Your task to perform on an android device: stop showing notifications on the lock screen Image 0: 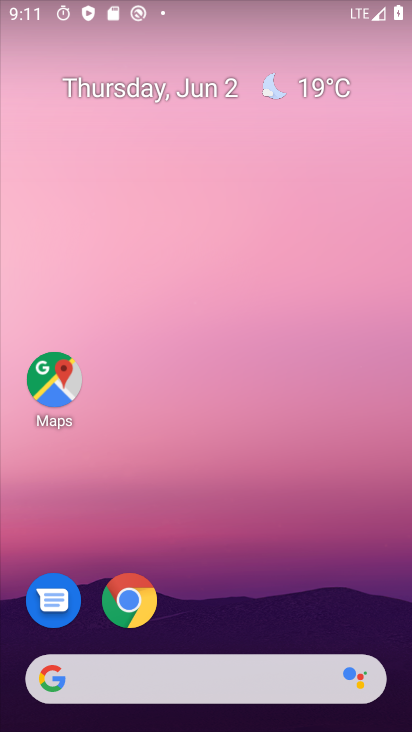
Step 0: drag from (280, 627) to (240, 326)
Your task to perform on an android device: stop showing notifications on the lock screen Image 1: 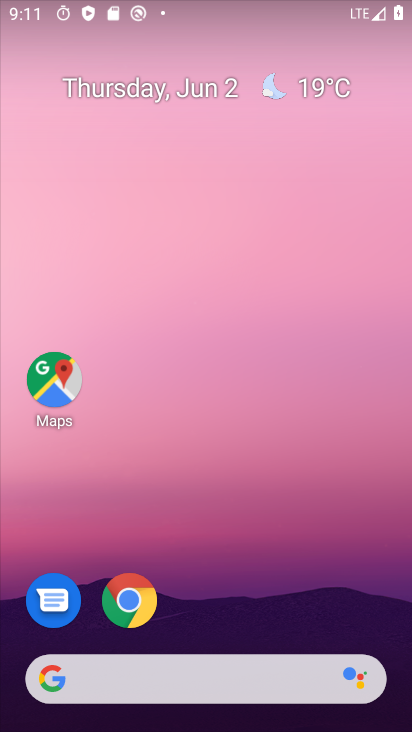
Step 1: drag from (219, 626) to (259, 138)
Your task to perform on an android device: stop showing notifications on the lock screen Image 2: 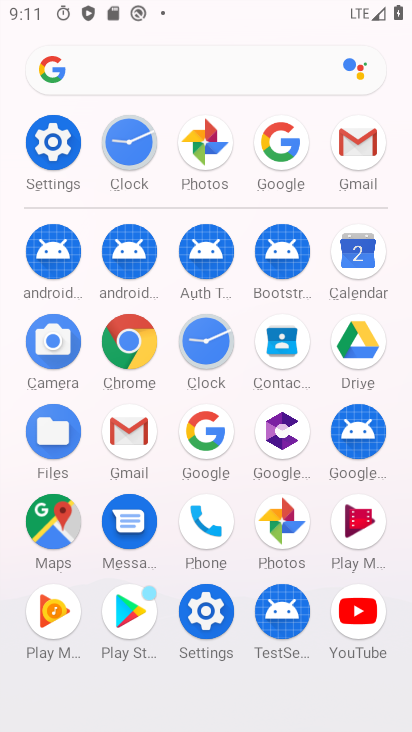
Step 2: click (59, 156)
Your task to perform on an android device: stop showing notifications on the lock screen Image 3: 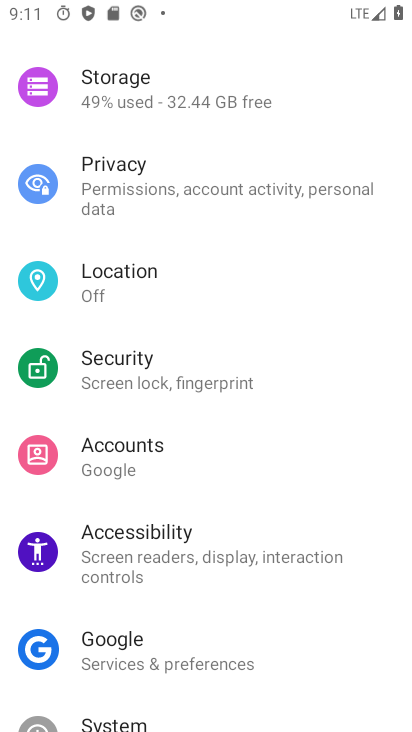
Step 3: drag from (246, 649) to (257, 430)
Your task to perform on an android device: stop showing notifications on the lock screen Image 4: 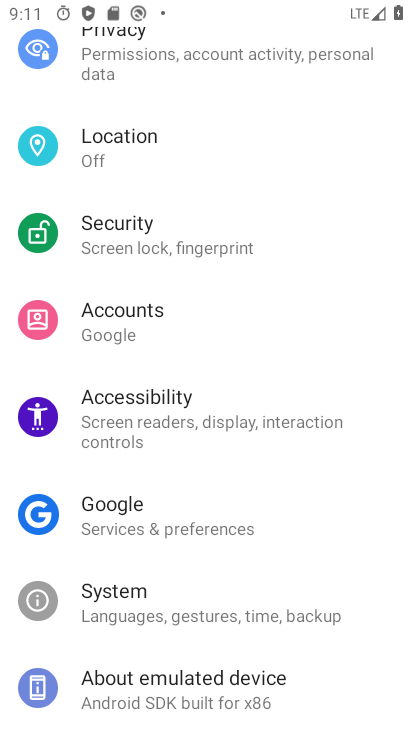
Step 4: drag from (233, 217) to (239, 635)
Your task to perform on an android device: stop showing notifications on the lock screen Image 5: 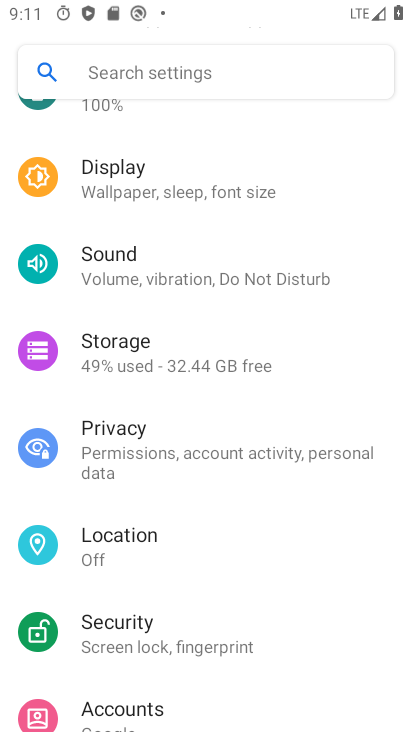
Step 5: drag from (196, 236) to (215, 533)
Your task to perform on an android device: stop showing notifications on the lock screen Image 6: 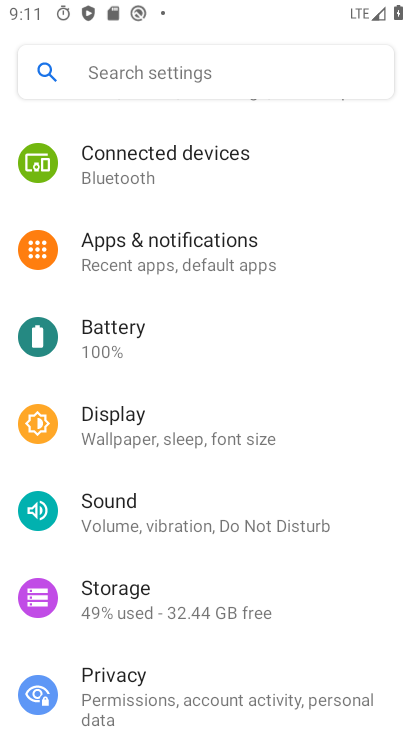
Step 6: click (244, 259)
Your task to perform on an android device: stop showing notifications on the lock screen Image 7: 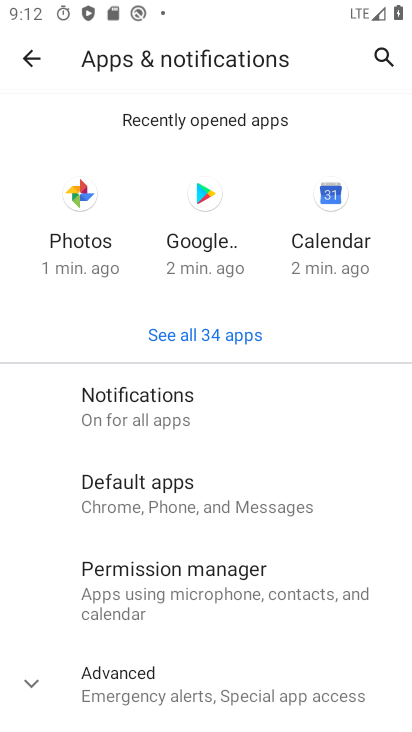
Step 7: click (153, 381)
Your task to perform on an android device: stop showing notifications on the lock screen Image 8: 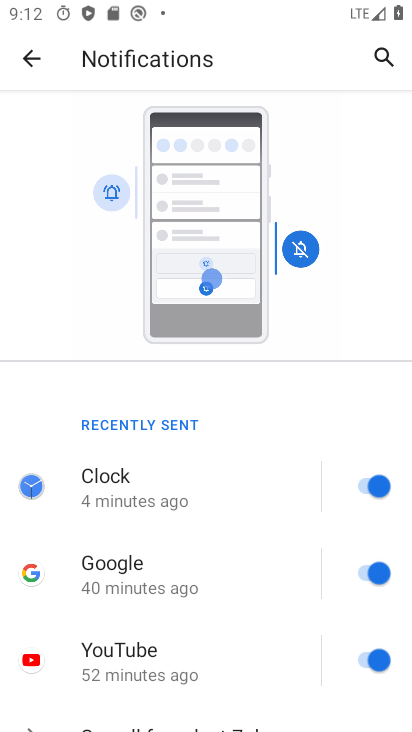
Step 8: drag from (213, 690) to (252, 280)
Your task to perform on an android device: stop showing notifications on the lock screen Image 9: 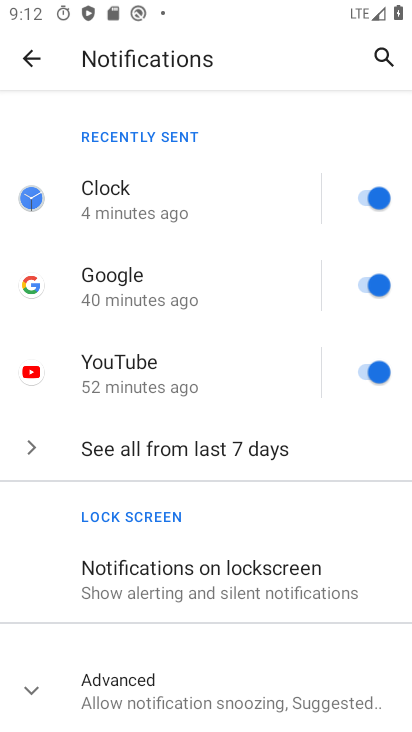
Step 9: click (234, 564)
Your task to perform on an android device: stop showing notifications on the lock screen Image 10: 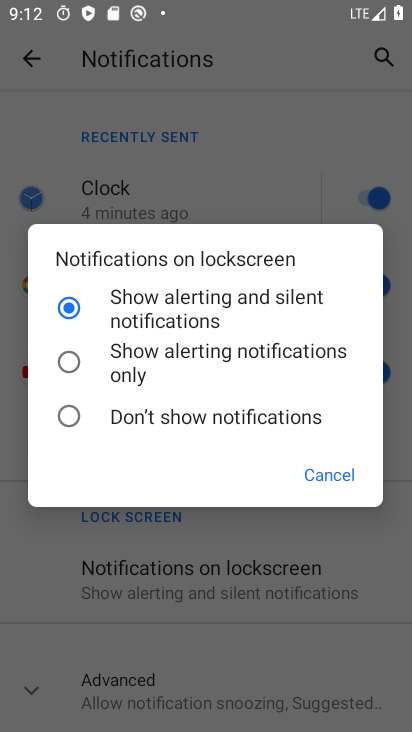
Step 10: click (128, 416)
Your task to perform on an android device: stop showing notifications on the lock screen Image 11: 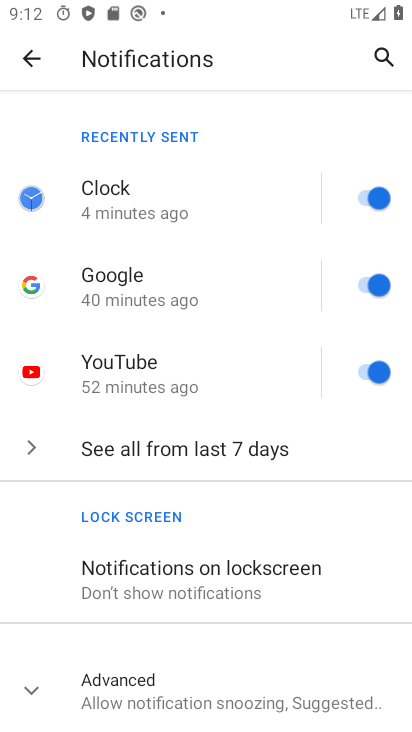
Step 11: task complete